Your task to perform on an android device: View the shopping cart on costco.com. Search for "razer nari" on costco.com, select the first entry, and add it to the cart. Image 0: 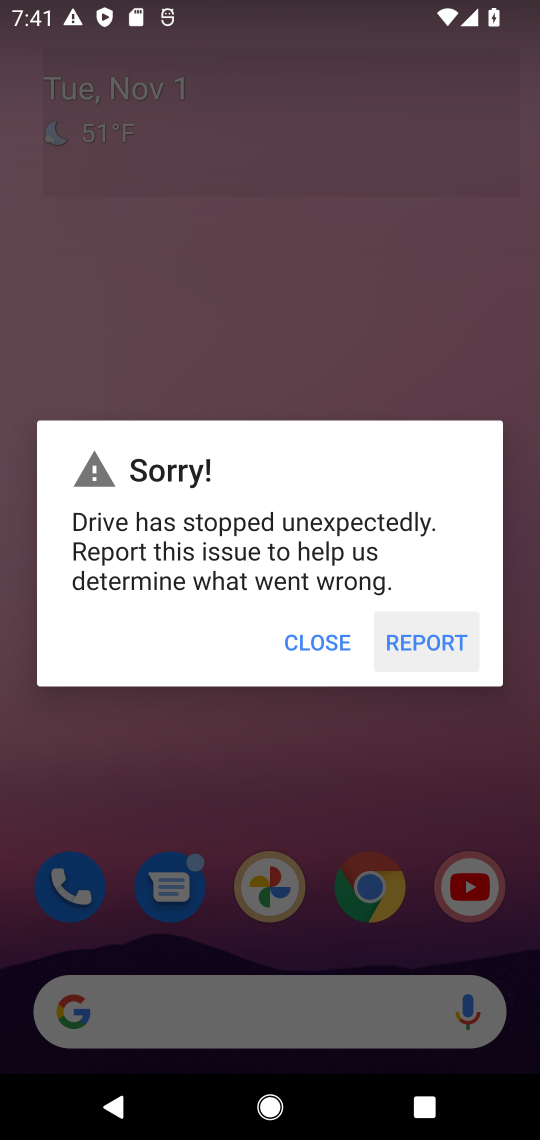
Step 0: click (308, 635)
Your task to perform on an android device: View the shopping cart on costco.com. Search for "razer nari" on costco.com, select the first entry, and add it to the cart. Image 1: 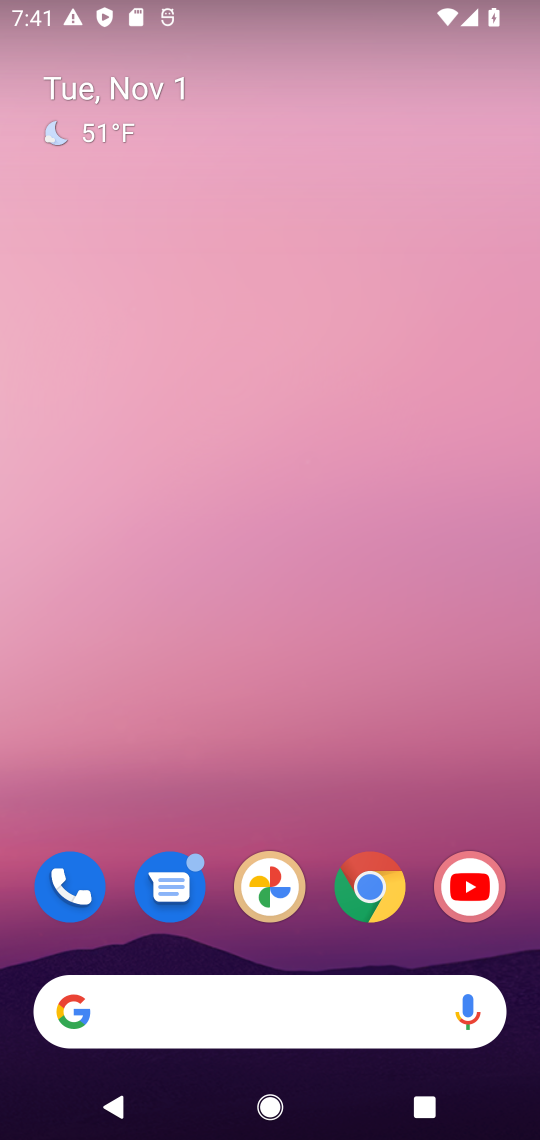
Step 1: click (308, 635)
Your task to perform on an android device: View the shopping cart on costco.com. Search for "razer nari" on costco.com, select the first entry, and add it to the cart. Image 2: 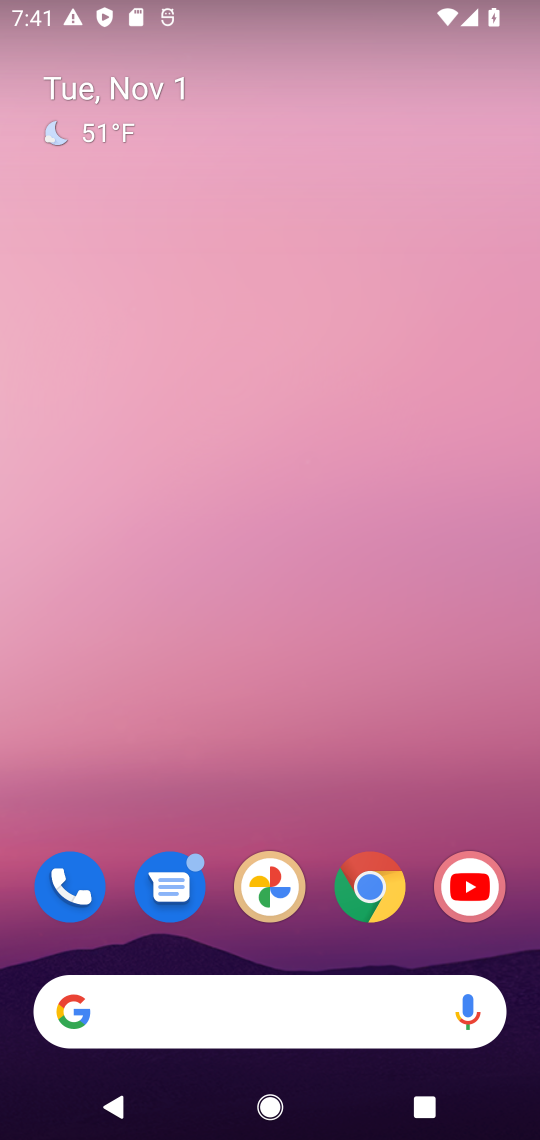
Step 2: drag from (224, 990) to (250, 250)
Your task to perform on an android device: View the shopping cart on costco.com. Search for "razer nari" on costco.com, select the first entry, and add it to the cart. Image 3: 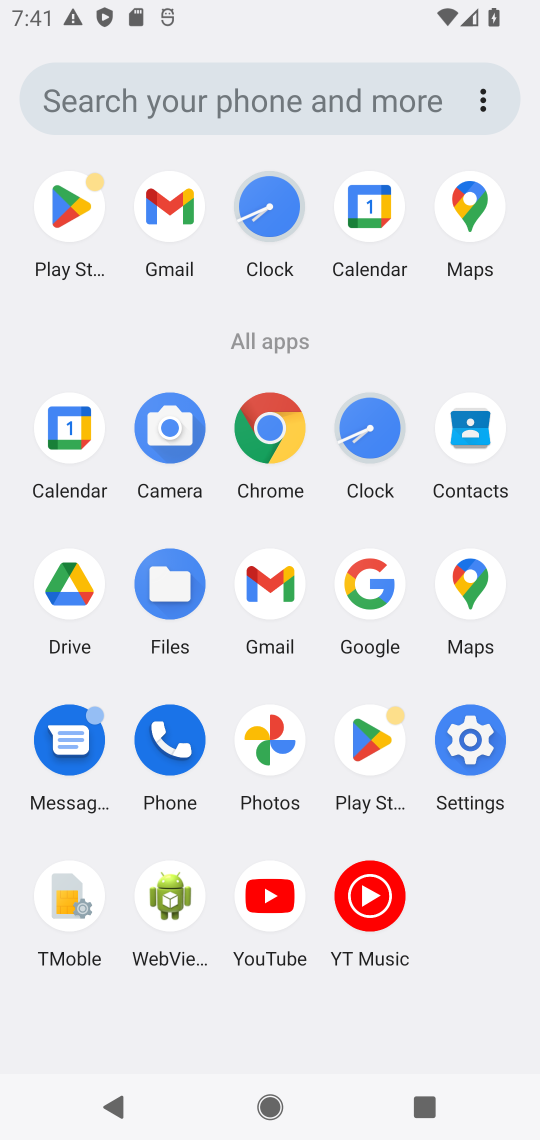
Step 3: click (363, 586)
Your task to perform on an android device: View the shopping cart on costco.com. Search for "razer nari" on costco.com, select the first entry, and add it to the cart. Image 4: 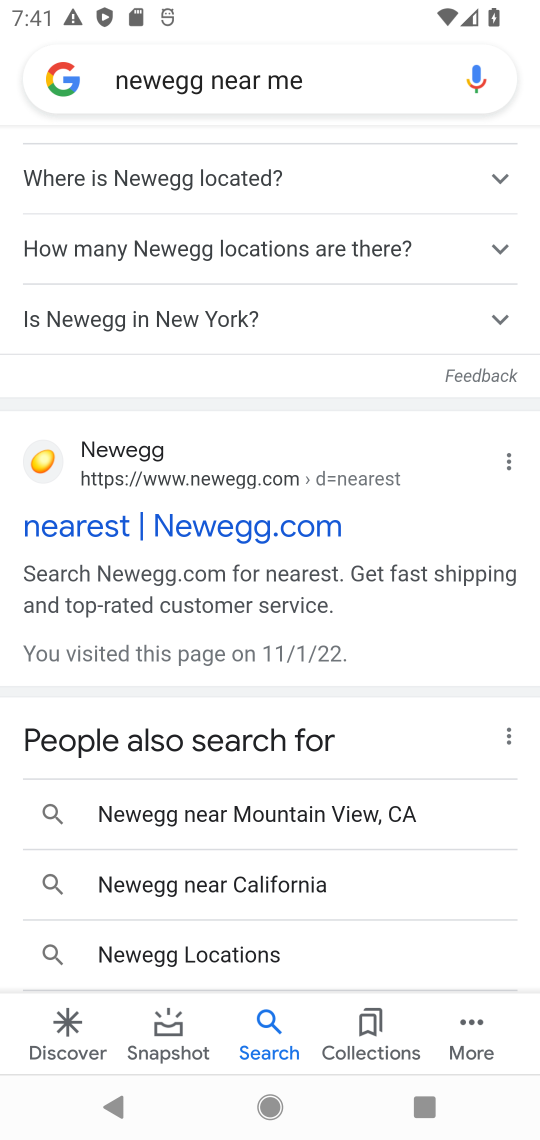
Step 4: click (275, 78)
Your task to perform on an android device: View the shopping cart on costco.com. Search for "razer nari" on costco.com, select the first entry, and add it to the cart. Image 5: 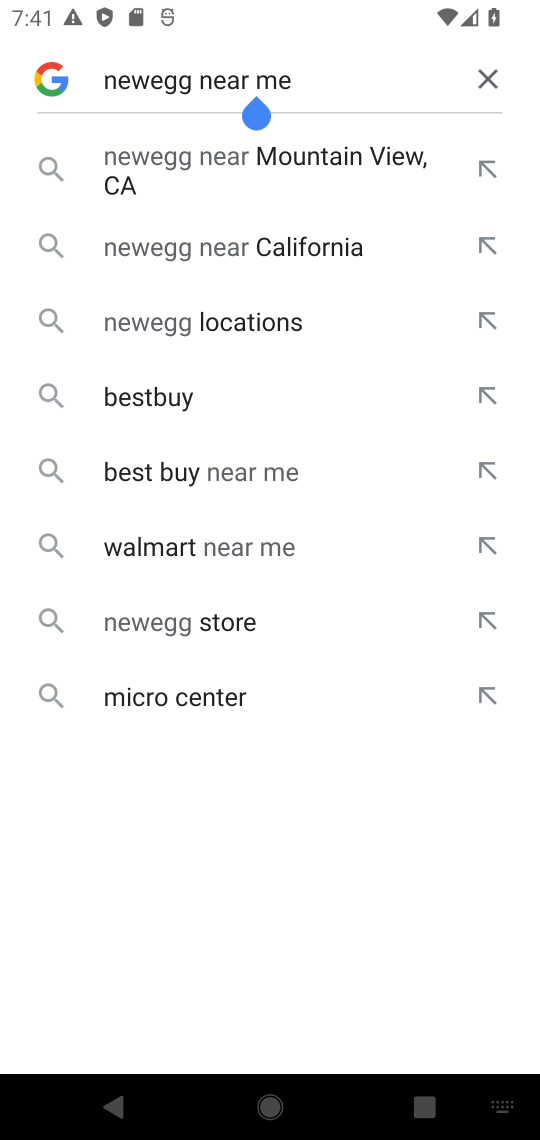
Step 5: click (485, 61)
Your task to perform on an android device: View the shopping cart on costco.com. Search for "razer nari" on costco.com, select the first entry, and add it to the cart. Image 6: 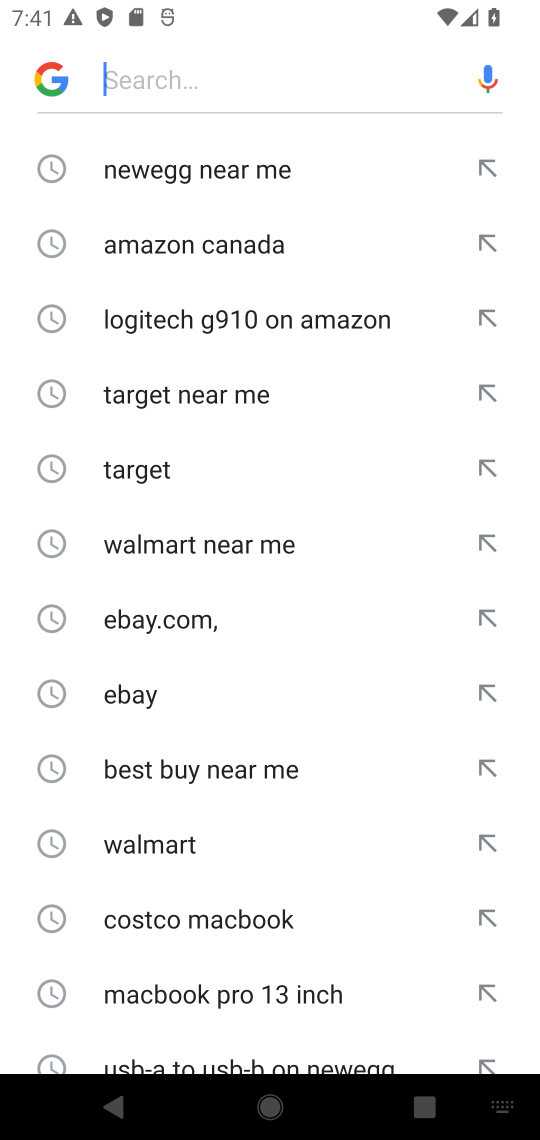
Step 6: drag from (160, 49) to (179, 103)
Your task to perform on an android device: View the shopping cart on costco.com. Search for "razer nari" on costco.com, select the first entry, and add it to the cart. Image 7: 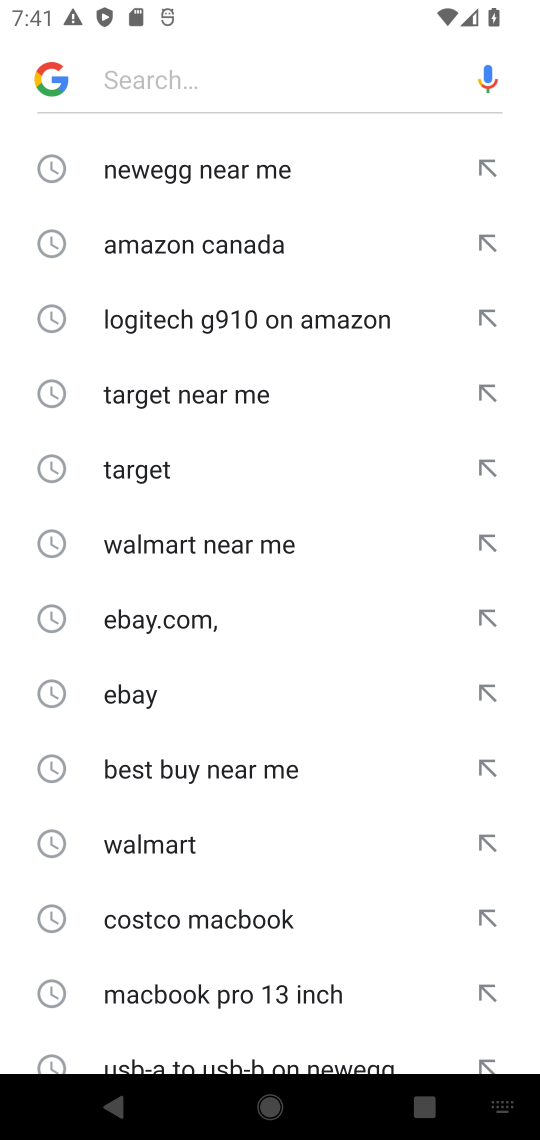
Step 7: click (206, 85)
Your task to perform on an android device: View the shopping cart on costco.com. Search for "razer nari" on costco.com, select the first entry, and add it to the cart. Image 8: 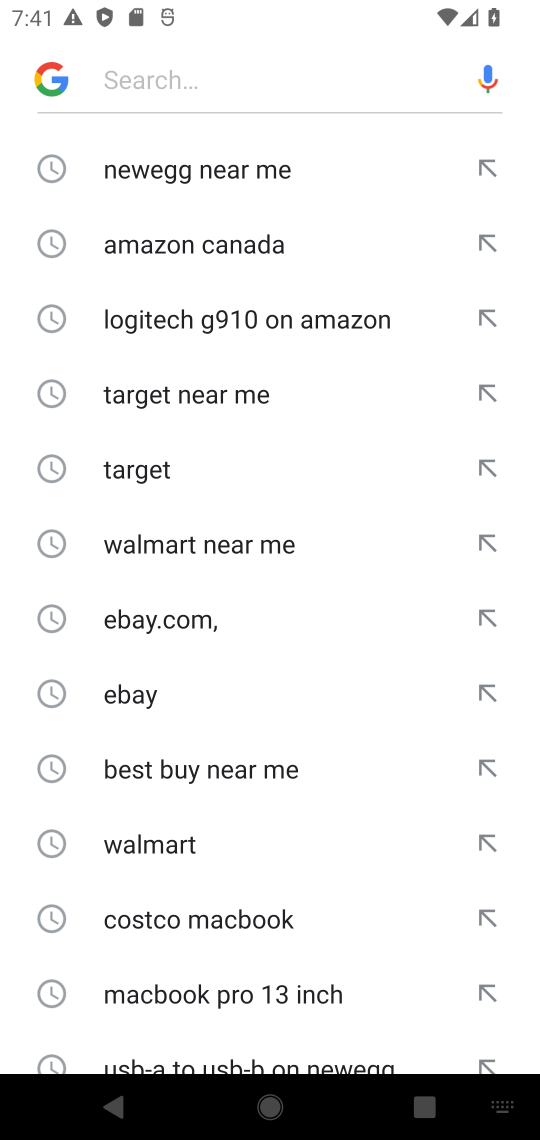
Step 8: type "costco "
Your task to perform on an android device: View the shopping cart on costco.com. Search for "razer nari" on costco.com, select the first entry, and add it to the cart. Image 9: 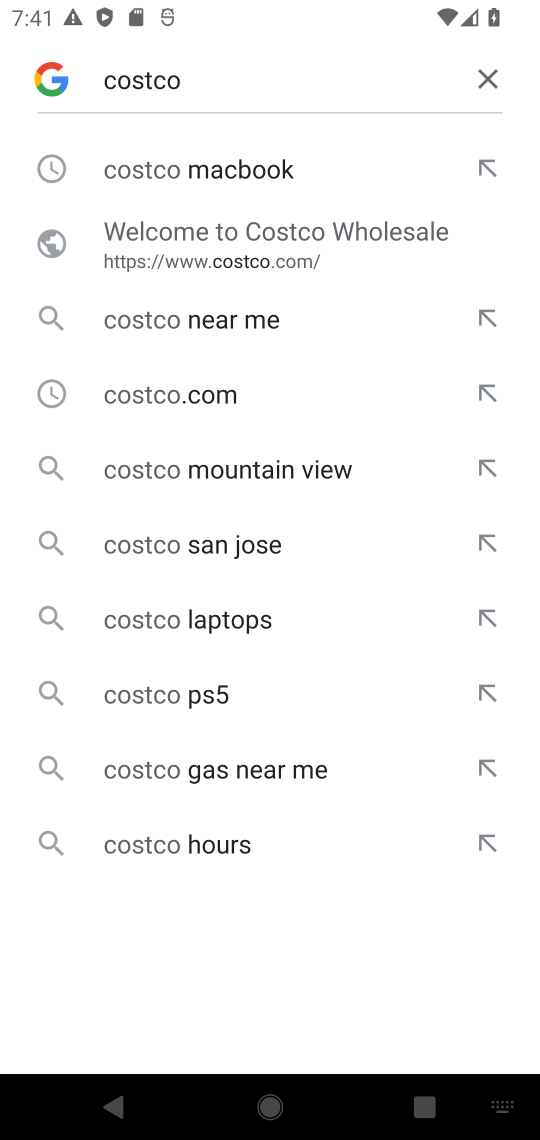
Step 9: click (162, 391)
Your task to perform on an android device: View the shopping cart on costco.com. Search for "razer nari" on costco.com, select the first entry, and add it to the cart. Image 10: 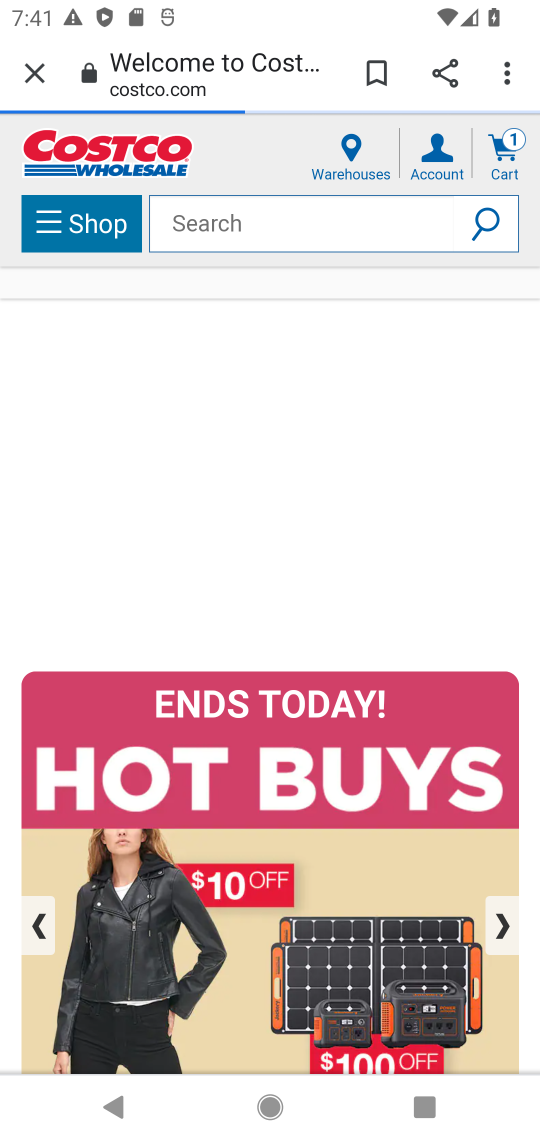
Step 10: click (243, 225)
Your task to perform on an android device: View the shopping cart on costco.com. Search for "razer nari" on costco.com, select the first entry, and add it to the cart. Image 11: 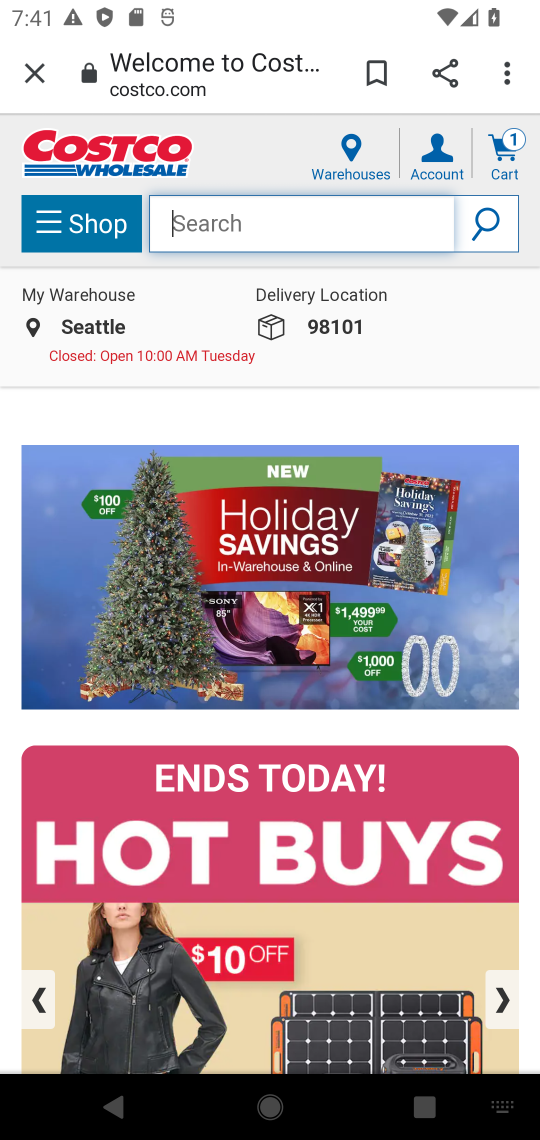
Step 11: click (502, 158)
Your task to perform on an android device: View the shopping cart on costco.com. Search for "razer nari" on costco.com, select the first entry, and add it to the cart. Image 12: 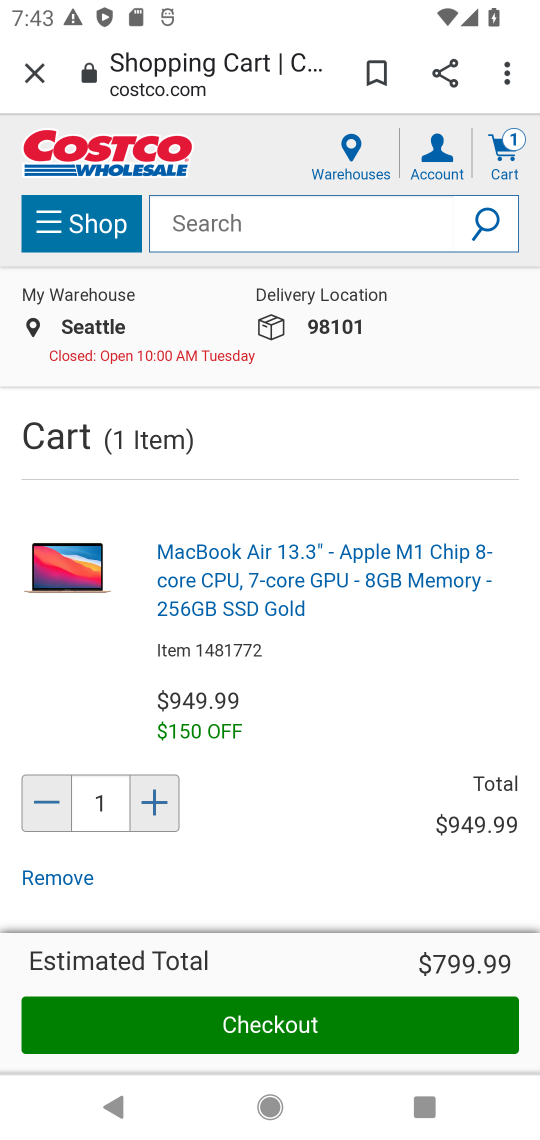
Step 12: task complete